Your task to perform on an android device: Open the web browser Image 0: 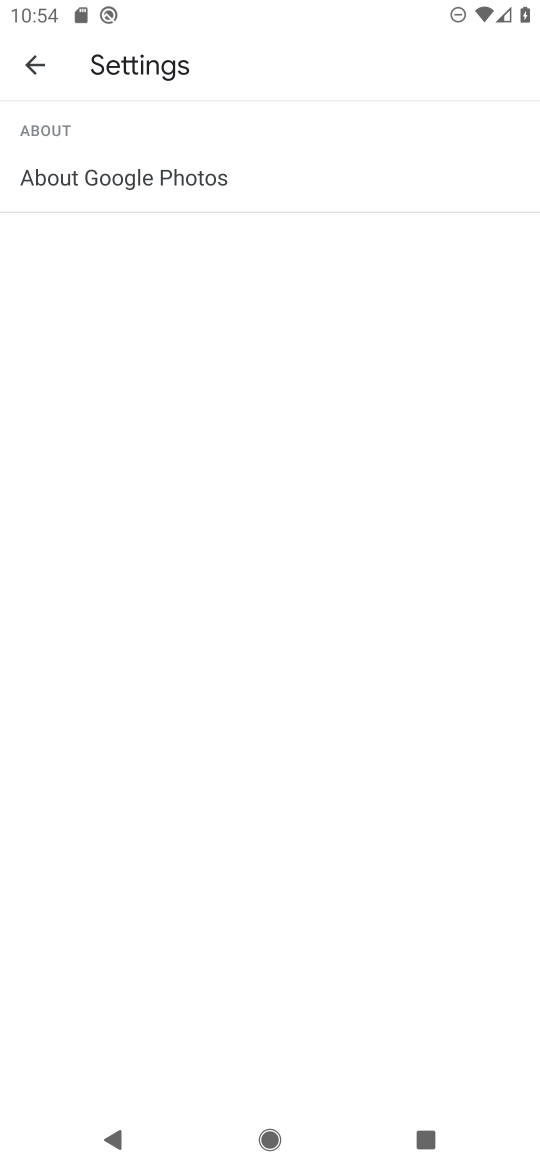
Step 0: press home button
Your task to perform on an android device: Open the web browser Image 1: 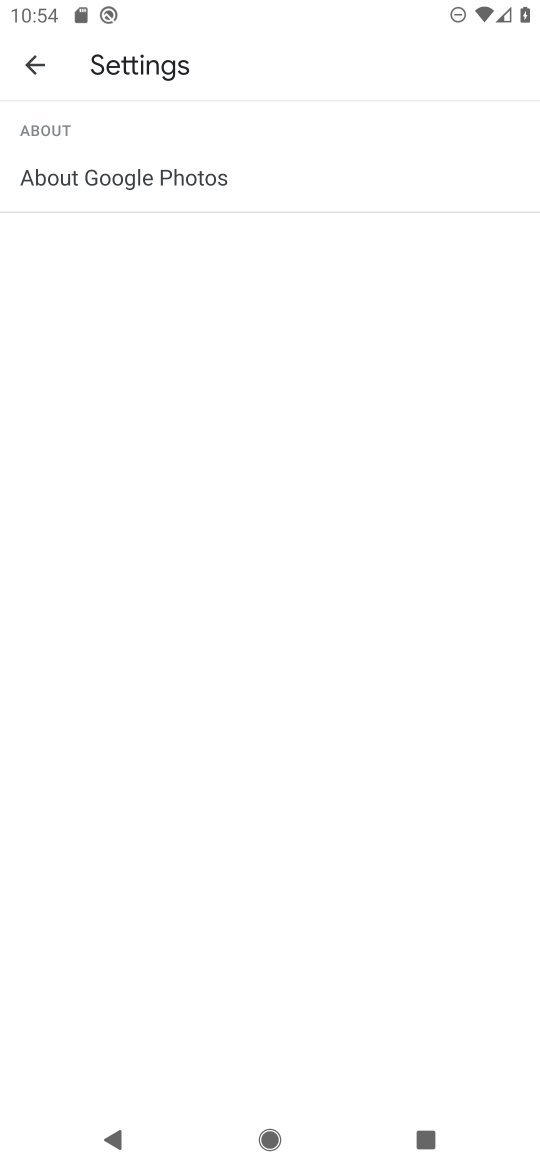
Step 1: press home button
Your task to perform on an android device: Open the web browser Image 2: 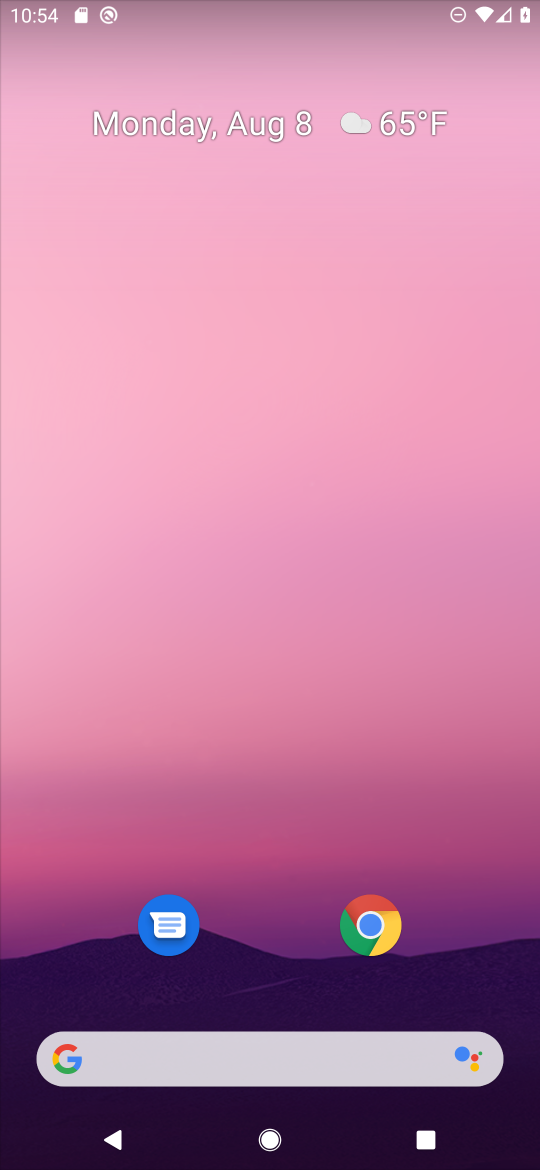
Step 2: drag from (257, 899) to (344, 196)
Your task to perform on an android device: Open the web browser Image 3: 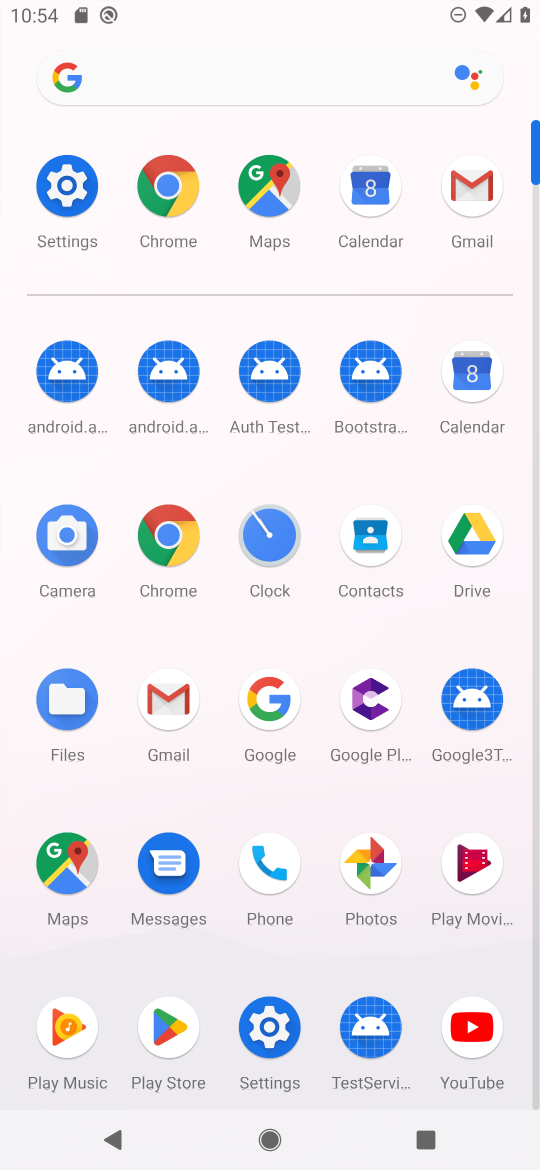
Step 3: click (174, 534)
Your task to perform on an android device: Open the web browser Image 4: 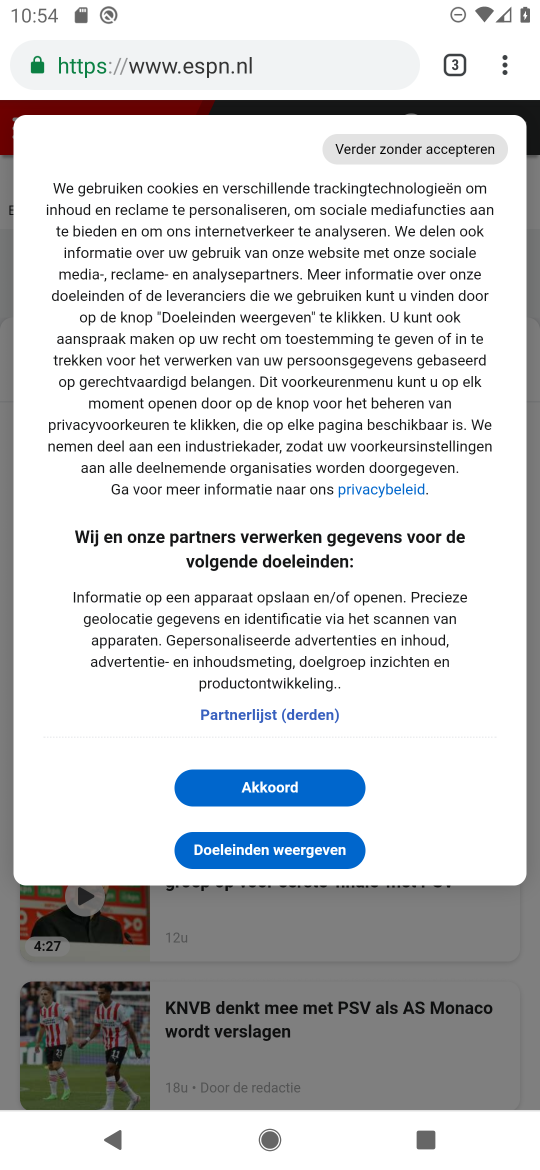
Step 4: task complete